Your task to perform on an android device: turn notification dots off Image 0: 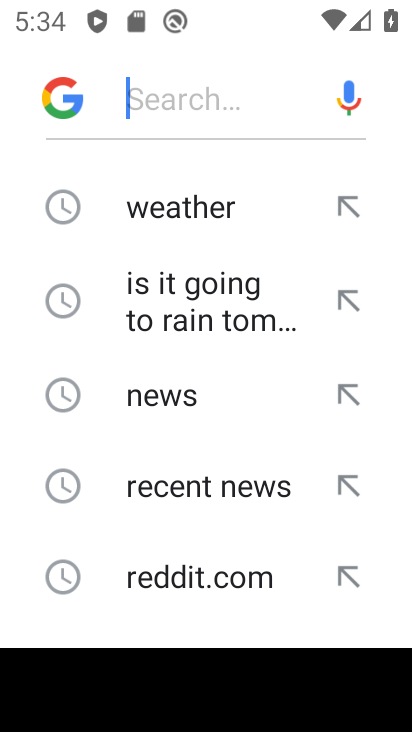
Step 0: press back button
Your task to perform on an android device: turn notification dots off Image 1: 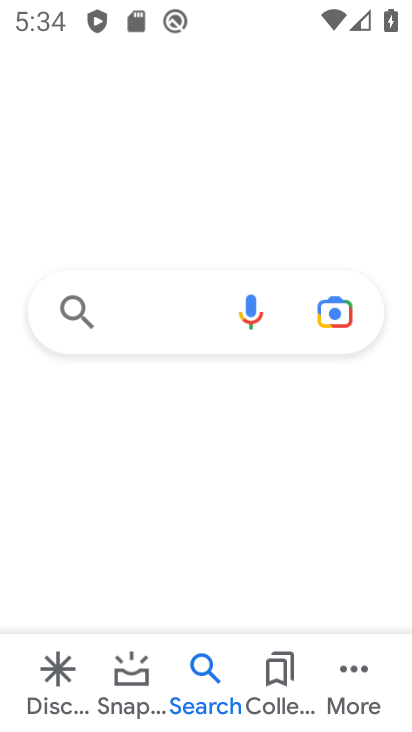
Step 1: press back button
Your task to perform on an android device: turn notification dots off Image 2: 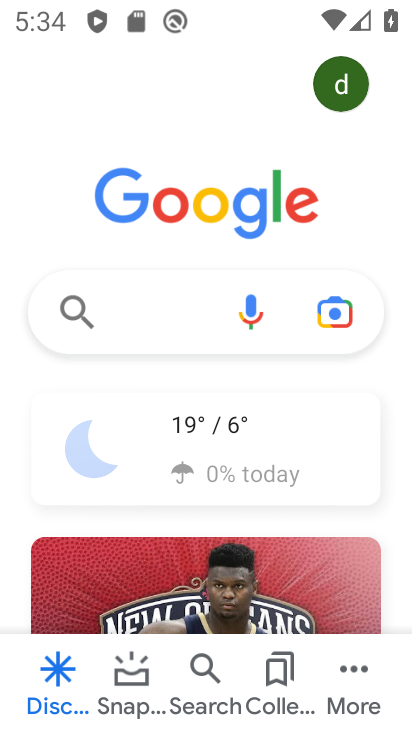
Step 2: press back button
Your task to perform on an android device: turn notification dots off Image 3: 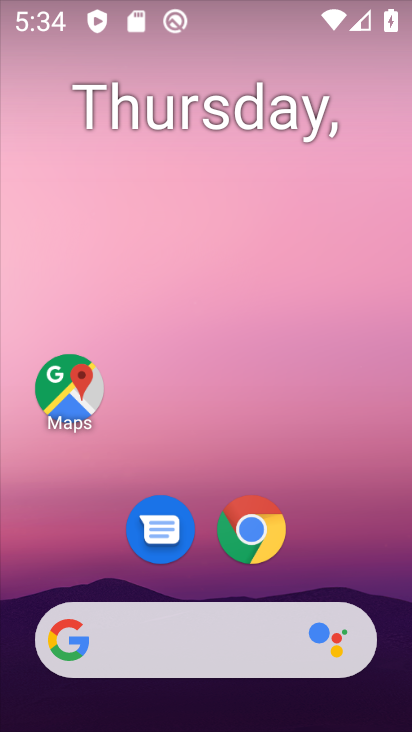
Step 3: drag from (345, 550) to (299, 8)
Your task to perform on an android device: turn notification dots off Image 4: 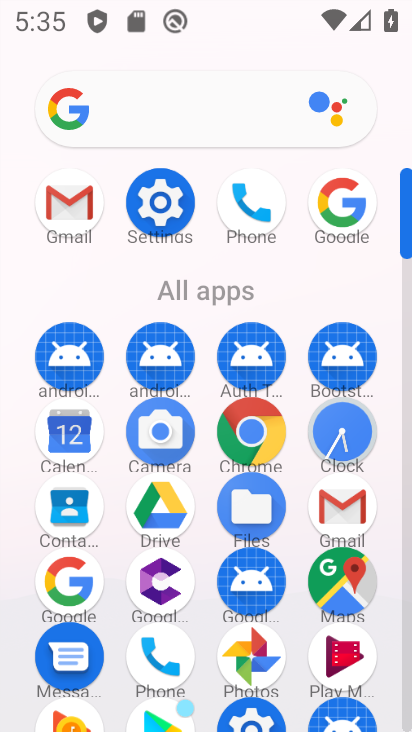
Step 4: click (159, 199)
Your task to perform on an android device: turn notification dots off Image 5: 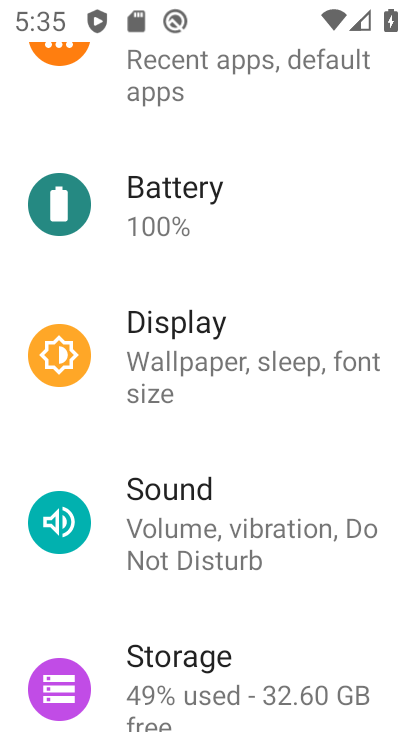
Step 5: drag from (205, 431) to (290, 311)
Your task to perform on an android device: turn notification dots off Image 6: 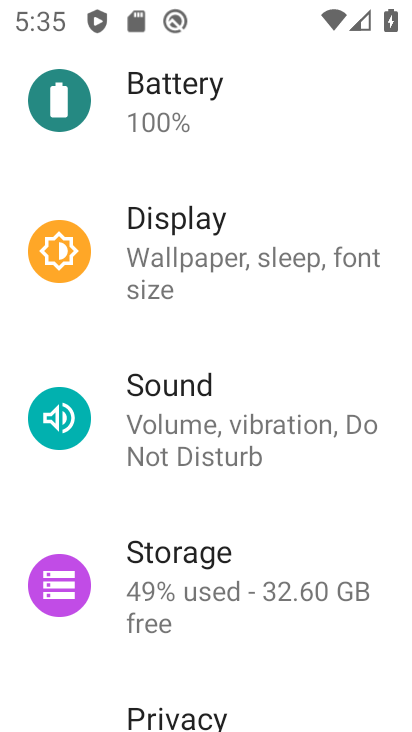
Step 6: drag from (178, 493) to (294, 341)
Your task to perform on an android device: turn notification dots off Image 7: 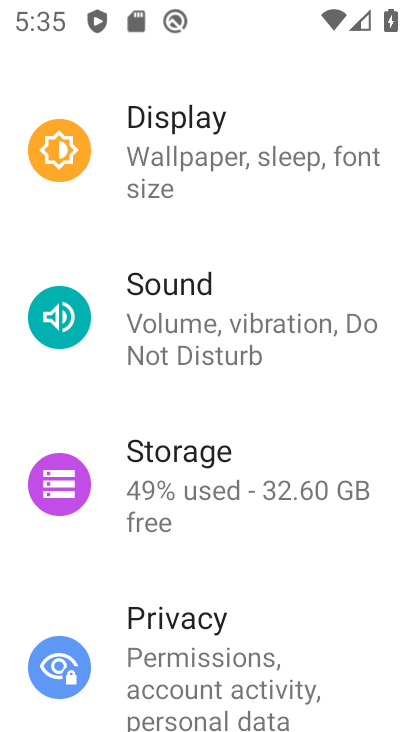
Step 7: drag from (178, 547) to (281, 400)
Your task to perform on an android device: turn notification dots off Image 8: 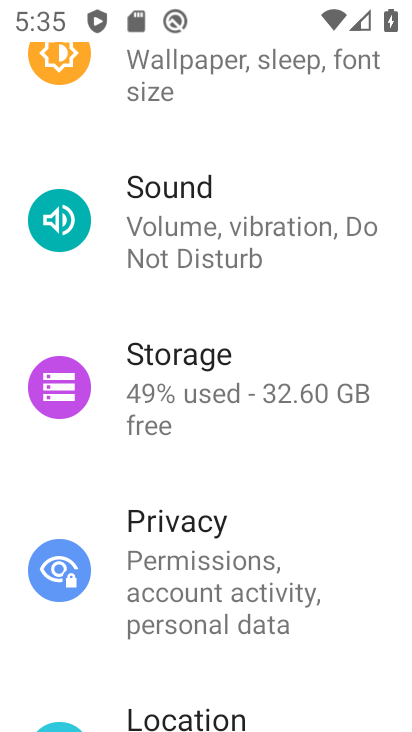
Step 8: drag from (153, 656) to (250, 468)
Your task to perform on an android device: turn notification dots off Image 9: 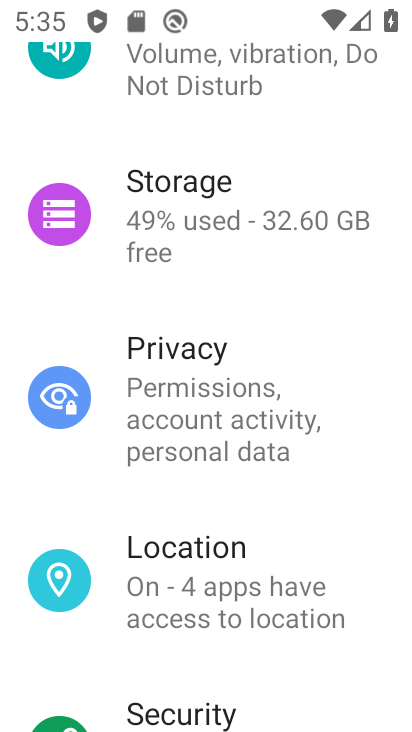
Step 9: drag from (170, 520) to (281, 291)
Your task to perform on an android device: turn notification dots off Image 10: 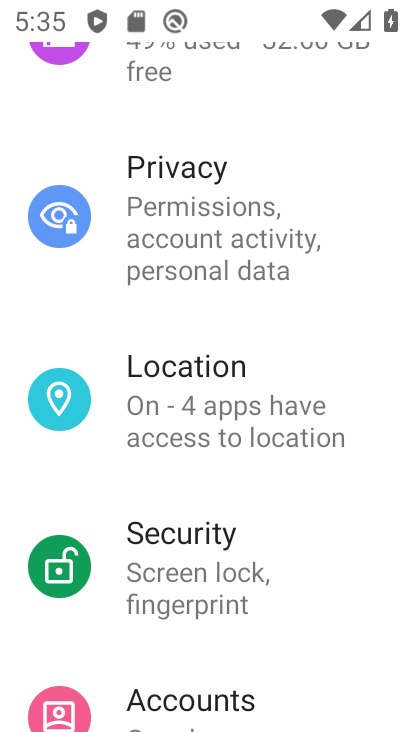
Step 10: drag from (219, 255) to (246, 511)
Your task to perform on an android device: turn notification dots off Image 11: 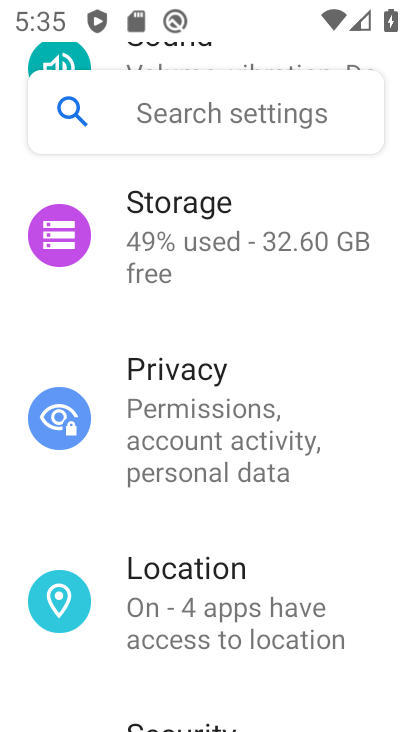
Step 11: drag from (240, 246) to (289, 519)
Your task to perform on an android device: turn notification dots off Image 12: 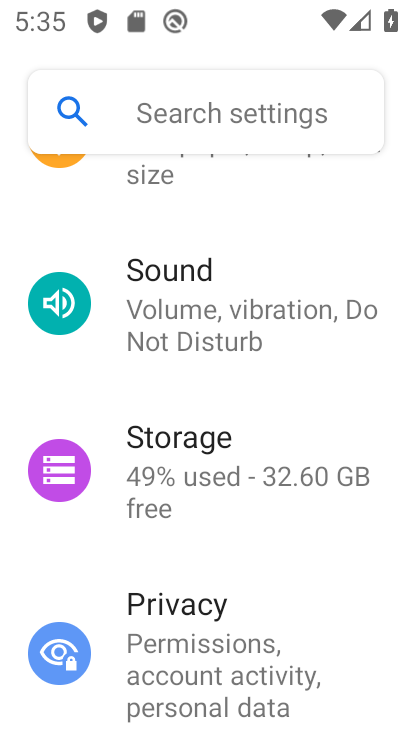
Step 12: drag from (256, 260) to (297, 499)
Your task to perform on an android device: turn notification dots off Image 13: 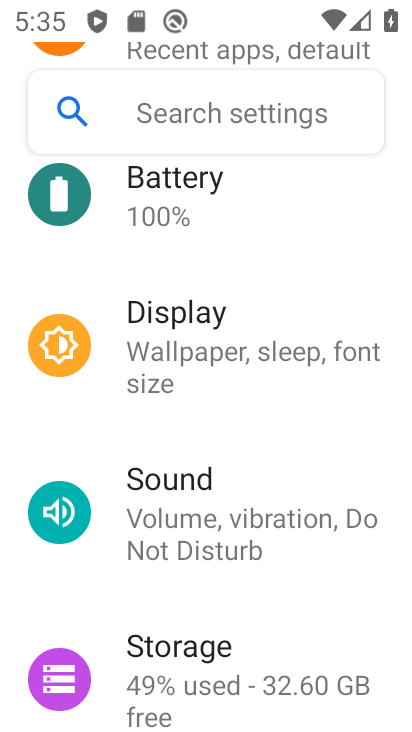
Step 13: drag from (245, 260) to (294, 502)
Your task to perform on an android device: turn notification dots off Image 14: 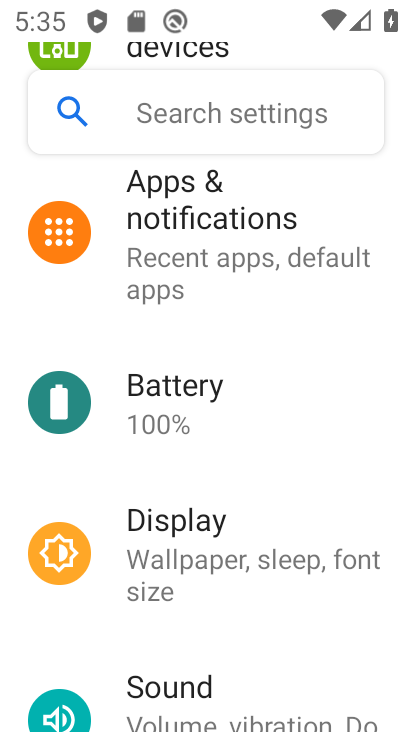
Step 14: click (223, 213)
Your task to perform on an android device: turn notification dots off Image 15: 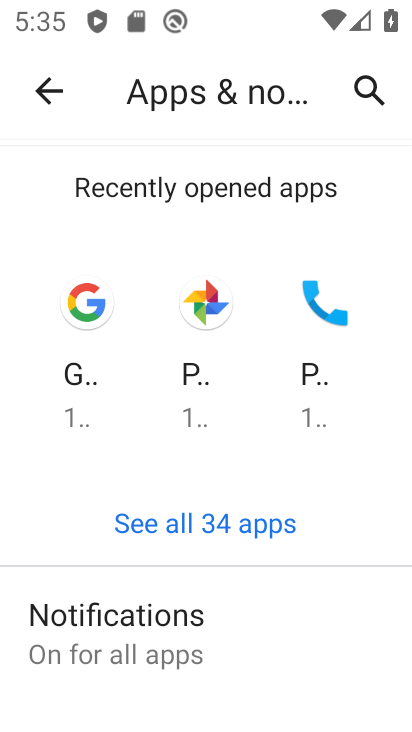
Step 15: click (154, 612)
Your task to perform on an android device: turn notification dots off Image 16: 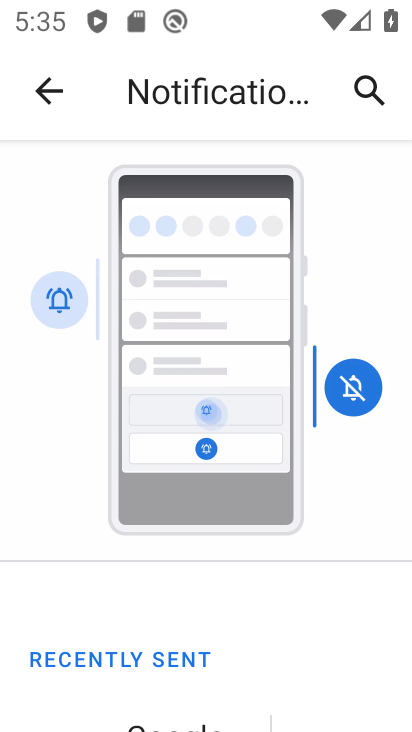
Step 16: drag from (291, 626) to (334, 297)
Your task to perform on an android device: turn notification dots off Image 17: 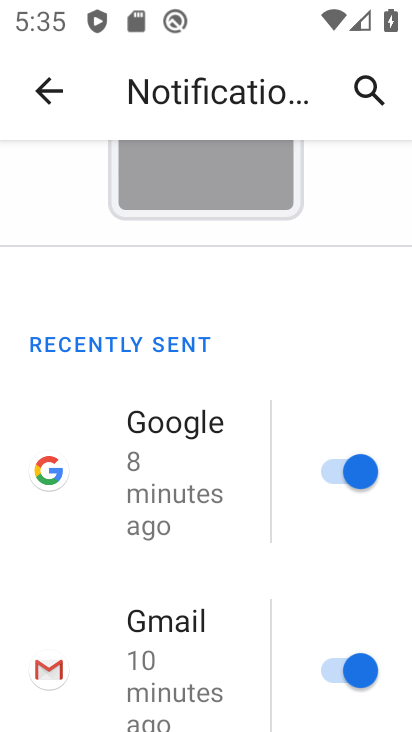
Step 17: drag from (230, 580) to (286, 334)
Your task to perform on an android device: turn notification dots off Image 18: 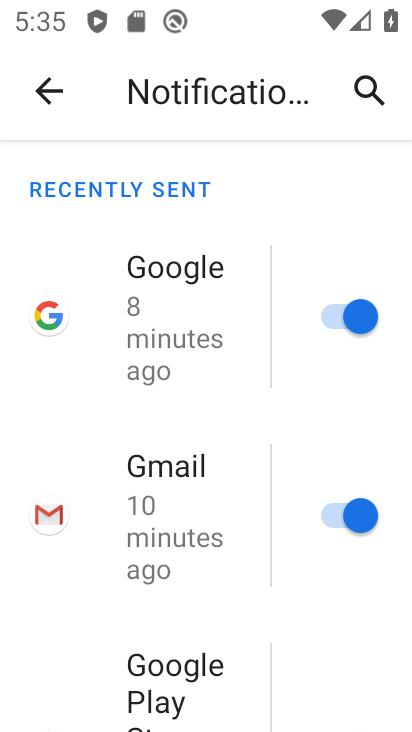
Step 18: drag from (169, 616) to (229, 372)
Your task to perform on an android device: turn notification dots off Image 19: 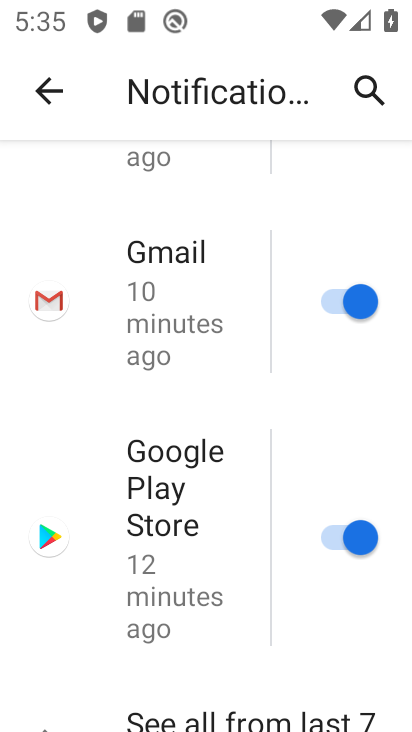
Step 19: drag from (195, 644) to (228, 459)
Your task to perform on an android device: turn notification dots off Image 20: 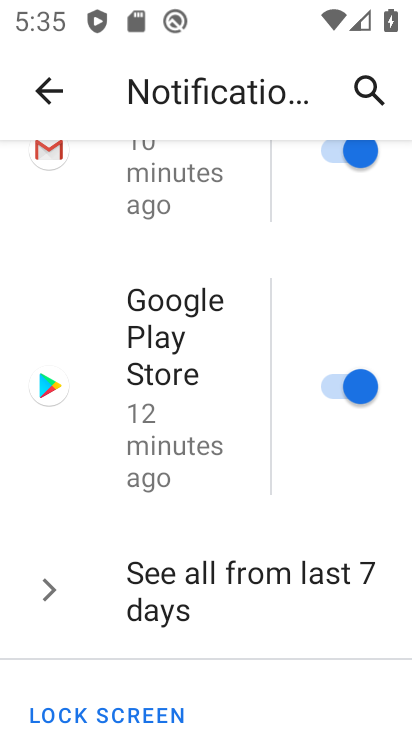
Step 20: drag from (218, 689) to (254, 541)
Your task to perform on an android device: turn notification dots off Image 21: 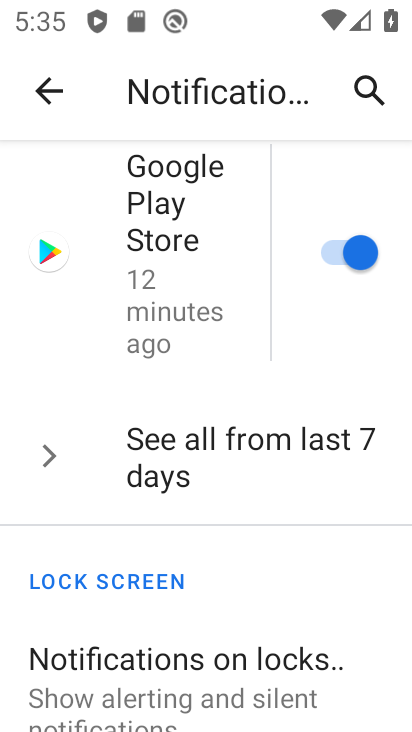
Step 21: drag from (205, 631) to (310, 434)
Your task to perform on an android device: turn notification dots off Image 22: 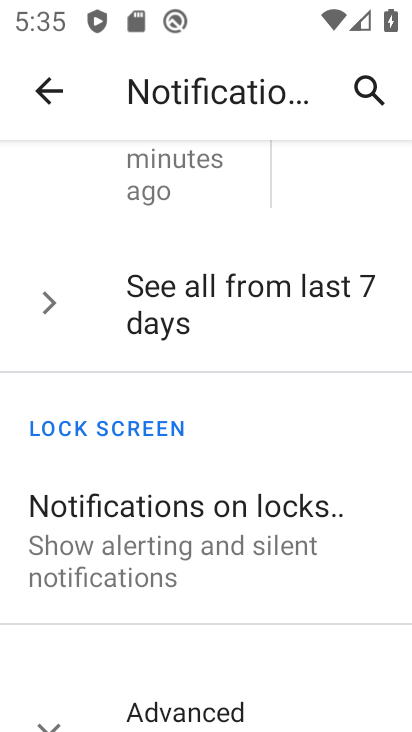
Step 22: drag from (225, 676) to (313, 471)
Your task to perform on an android device: turn notification dots off Image 23: 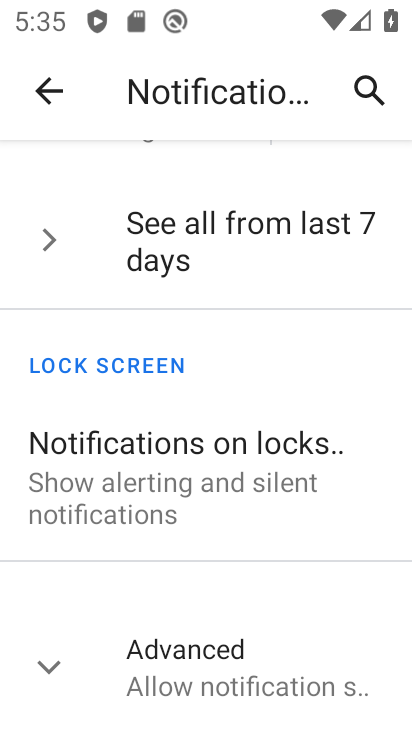
Step 23: click (191, 692)
Your task to perform on an android device: turn notification dots off Image 24: 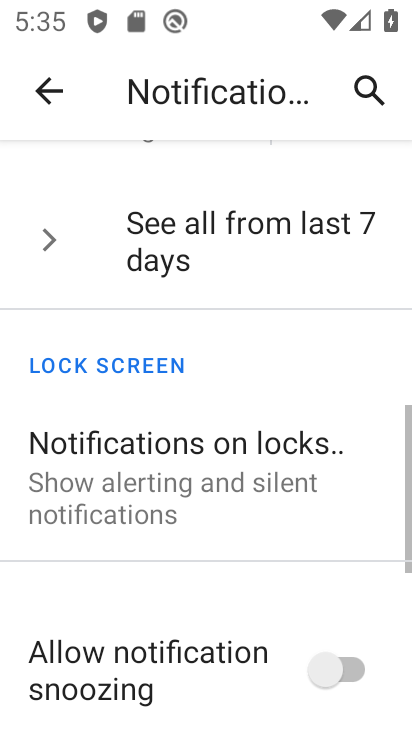
Step 24: drag from (191, 692) to (292, 491)
Your task to perform on an android device: turn notification dots off Image 25: 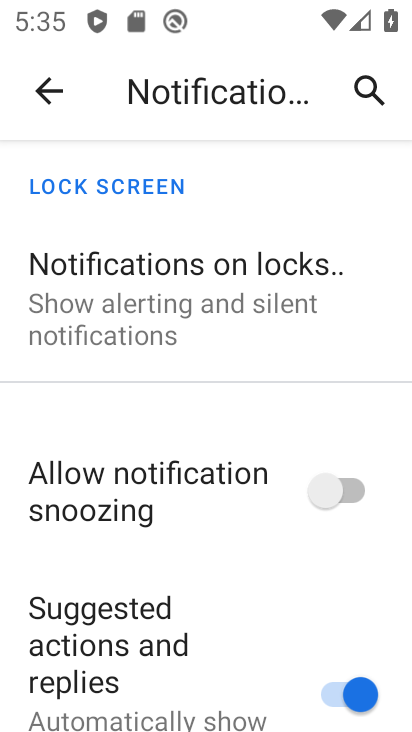
Step 25: drag from (225, 645) to (333, 356)
Your task to perform on an android device: turn notification dots off Image 26: 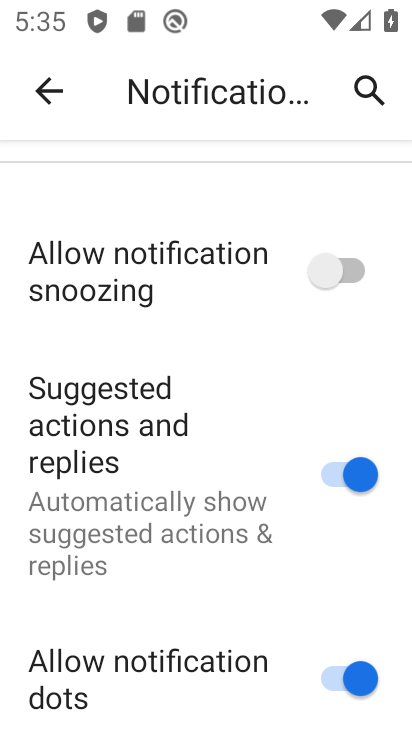
Step 26: drag from (214, 620) to (305, 436)
Your task to perform on an android device: turn notification dots off Image 27: 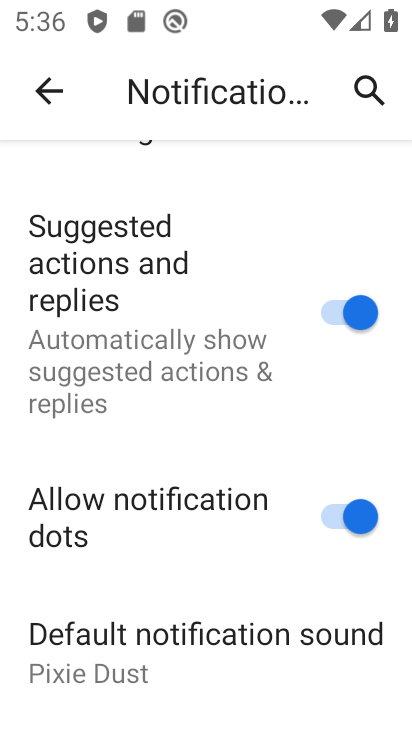
Step 27: click (351, 515)
Your task to perform on an android device: turn notification dots off Image 28: 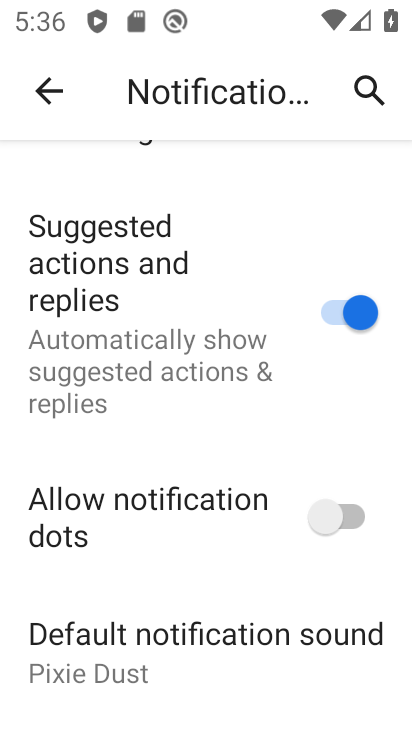
Step 28: task complete